Your task to perform on an android device: toggle pop-ups in chrome Image 0: 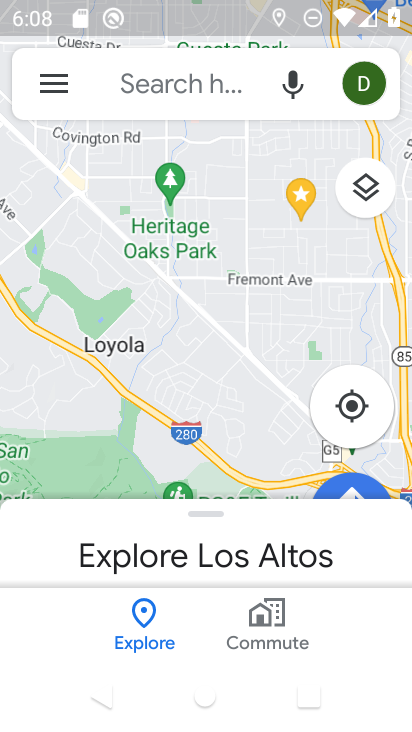
Step 0: press back button
Your task to perform on an android device: toggle pop-ups in chrome Image 1: 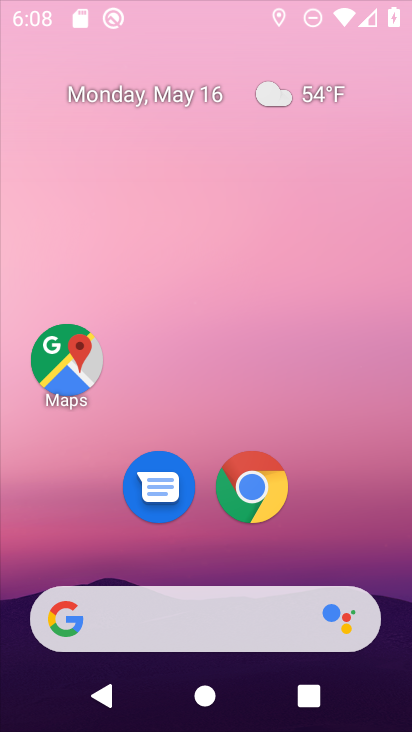
Step 1: click (382, 541)
Your task to perform on an android device: toggle pop-ups in chrome Image 2: 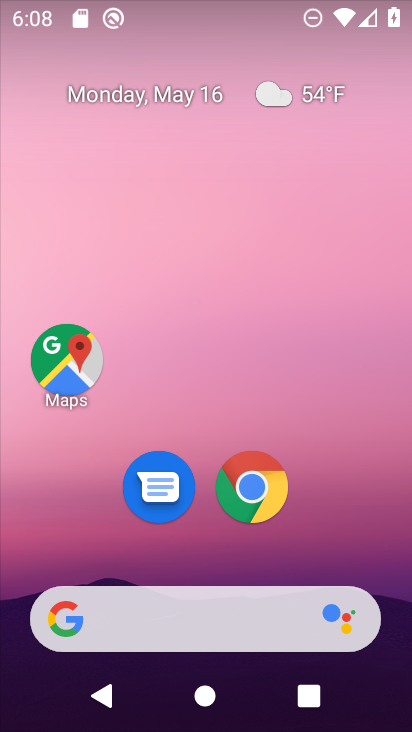
Step 2: click (240, 490)
Your task to perform on an android device: toggle pop-ups in chrome Image 3: 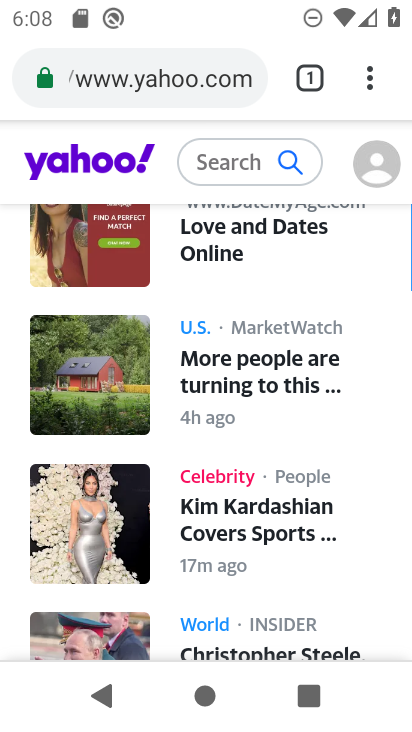
Step 3: click (373, 75)
Your task to perform on an android device: toggle pop-ups in chrome Image 4: 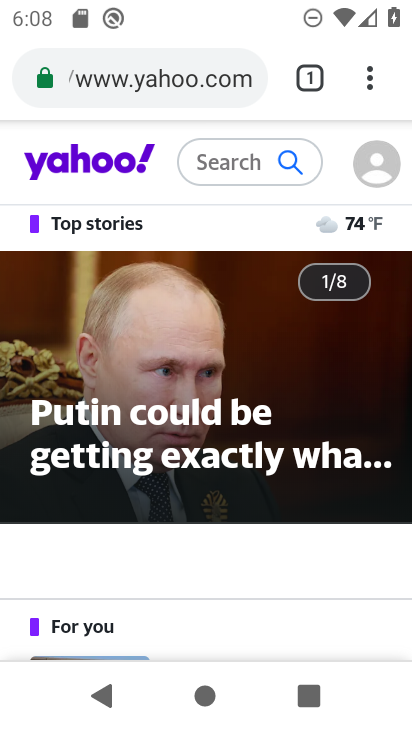
Step 4: click (373, 70)
Your task to perform on an android device: toggle pop-ups in chrome Image 5: 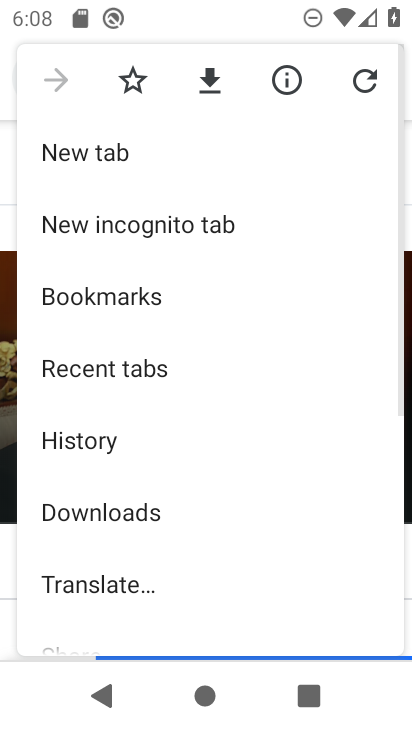
Step 5: drag from (137, 617) to (130, 322)
Your task to perform on an android device: toggle pop-ups in chrome Image 6: 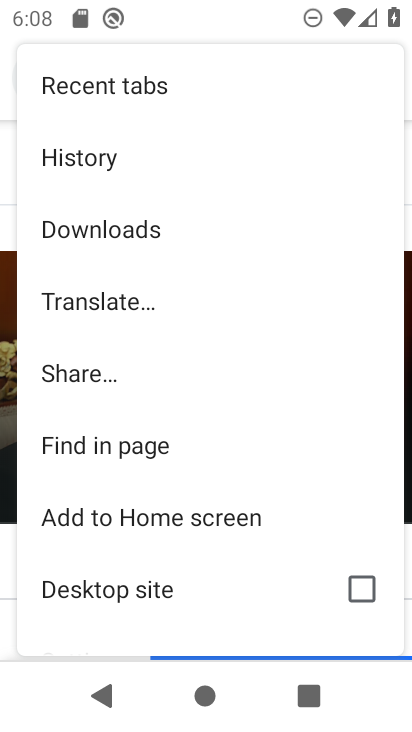
Step 6: drag from (114, 615) to (144, 314)
Your task to perform on an android device: toggle pop-ups in chrome Image 7: 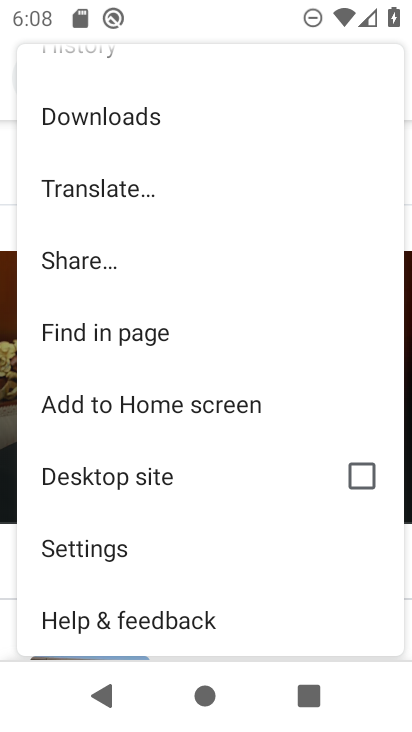
Step 7: click (128, 544)
Your task to perform on an android device: toggle pop-ups in chrome Image 8: 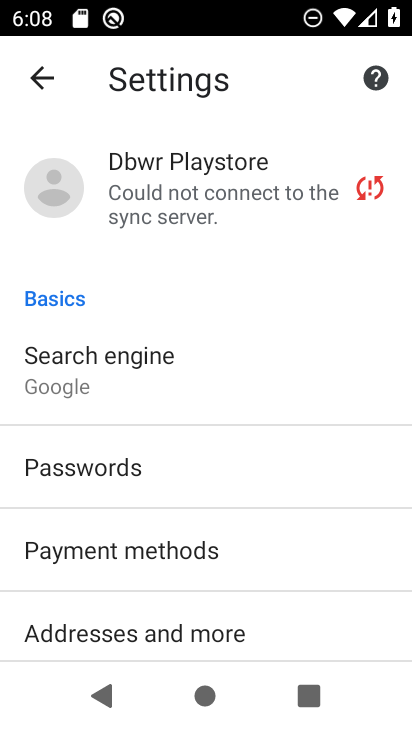
Step 8: click (207, 265)
Your task to perform on an android device: toggle pop-ups in chrome Image 9: 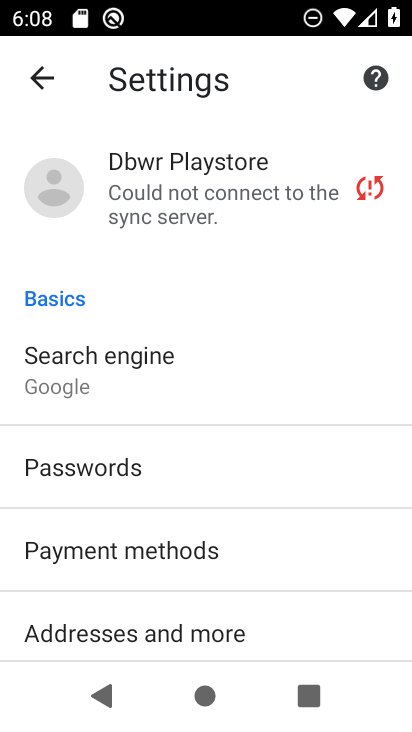
Step 9: click (178, 291)
Your task to perform on an android device: toggle pop-ups in chrome Image 10: 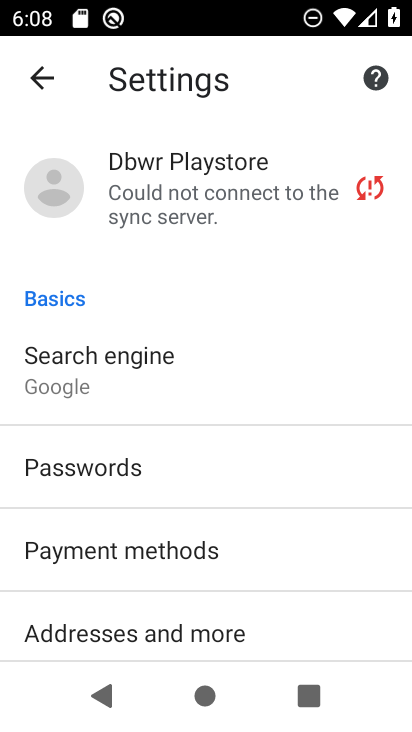
Step 10: drag from (234, 641) to (257, 322)
Your task to perform on an android device: toggle pop-ups in chrome Image 11: 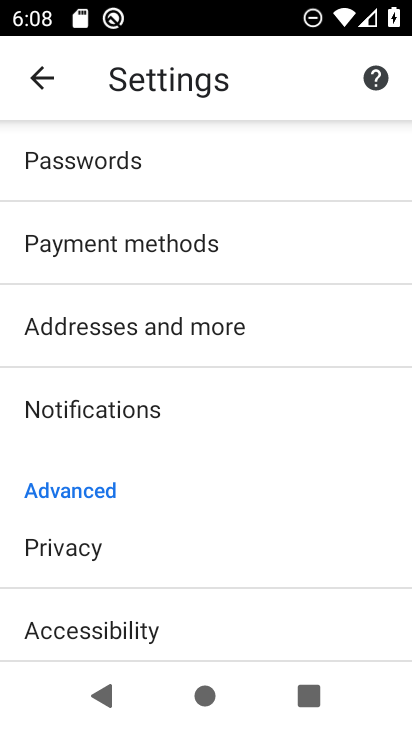
Step 11: drag from (218, 605) to (217, 327)
Your task to perform on an android device: toggle pop-ups in chrome Image 12: 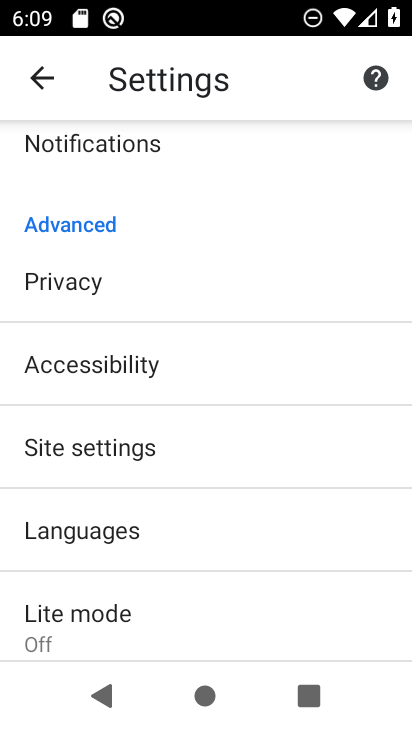
Step 12: click (33, 481)
Your task to perform on an android device: toggle pop-ups in chrome Image 13: 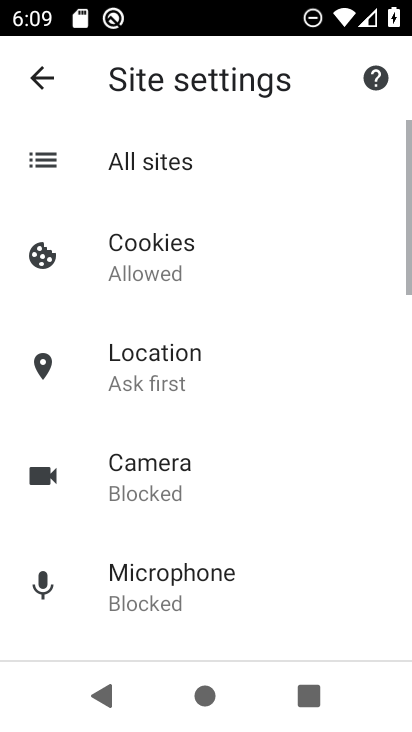
Step 13: click (33, 479)
Your task to perform on an android device: toggle pop-ups in chrome Image 14: 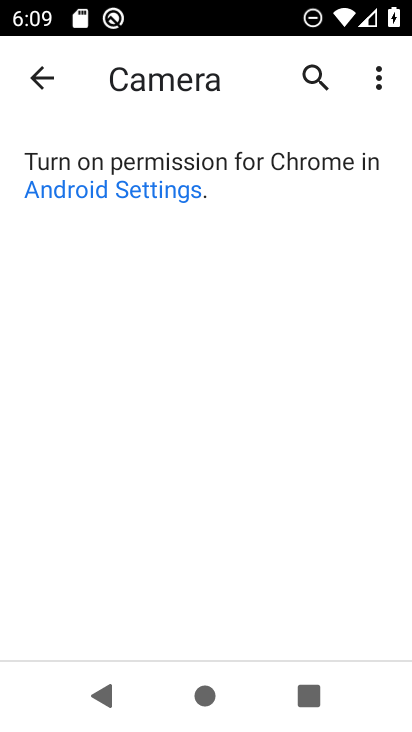
Step 14: click (71, 79)
Your task to perform on an android device: toggle pop-ups in chrome Image 15: 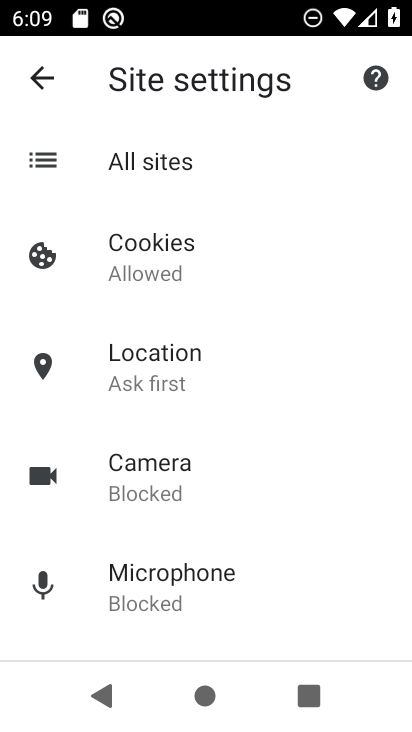
Step 15: drag from (134, 590) to (167, 358)
Your task to perform on an android device: toggle pop-ups in chrome Image 16: 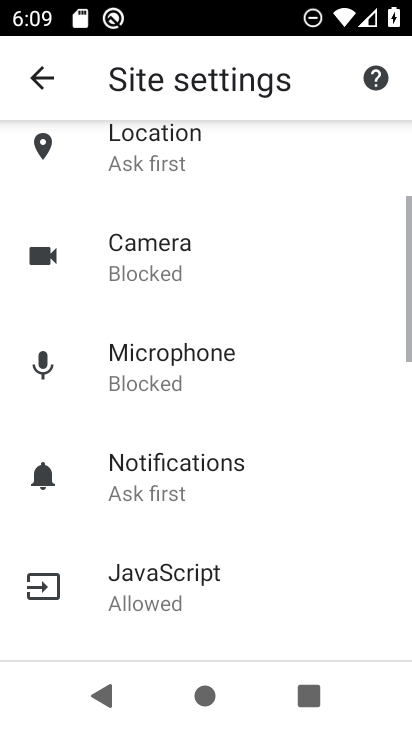
Step 16: drag from (140, 625) to (170, 391)
Your task to perform on an android device: toggle pop-ups in chrome Image 17: 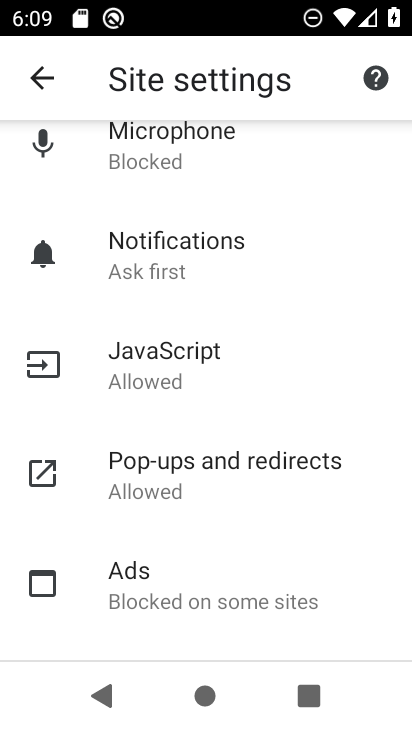
Step 17: click (188, 480)
Your task to perform on an android device: toggle pop-ups in chrome Image 18: 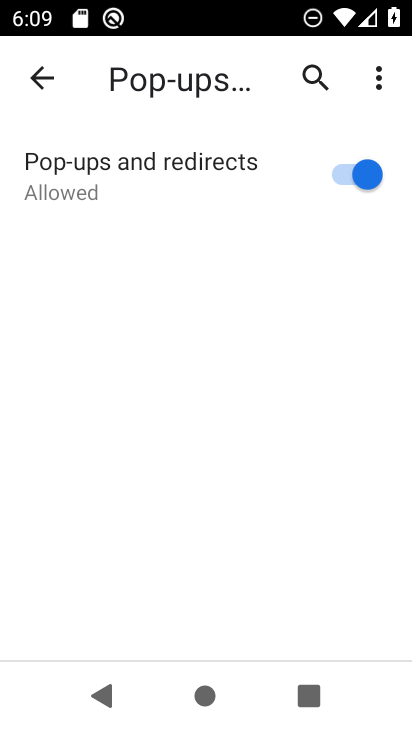
Step 18: click (350, 167)
Your task to perform on an android device: toggle pop-ups in chrome Image 19: 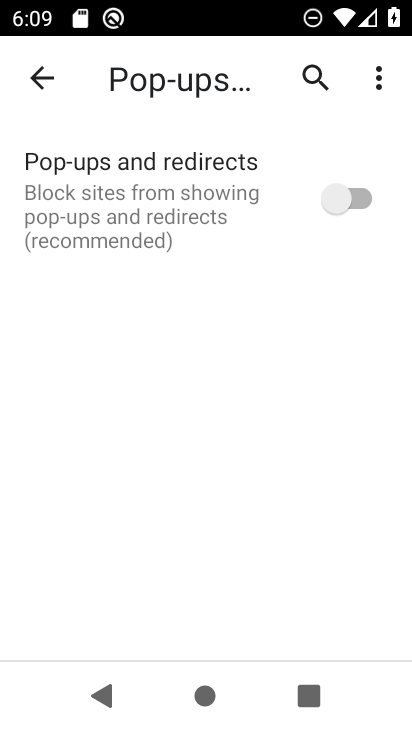
Step 19: task complete